Your task to perform on an android device: change text size in settings app Image 0: 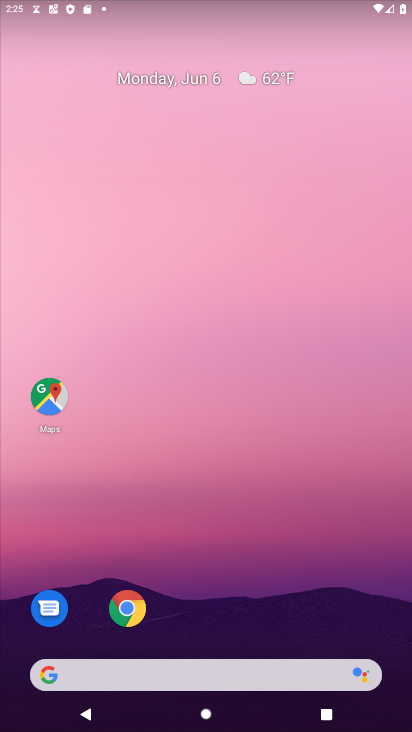
Step 0: drag from (262, 518) to (106, 4)
Your task to perform on an android device: change text size in settings app Image 1: 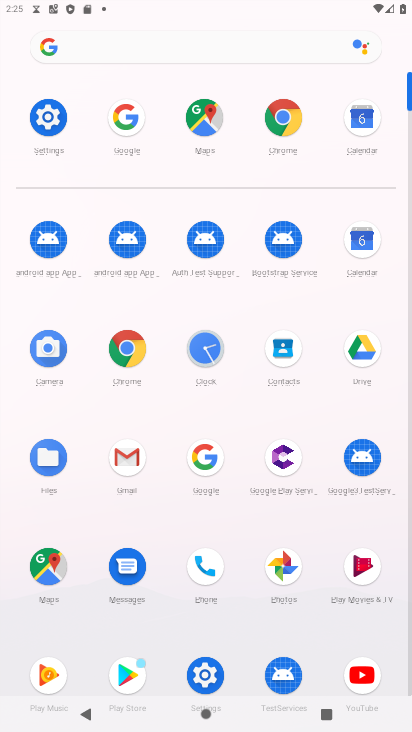
Step 1: click (45, 132)
Your task to perform on an android device: change text size in settings app Image 2: 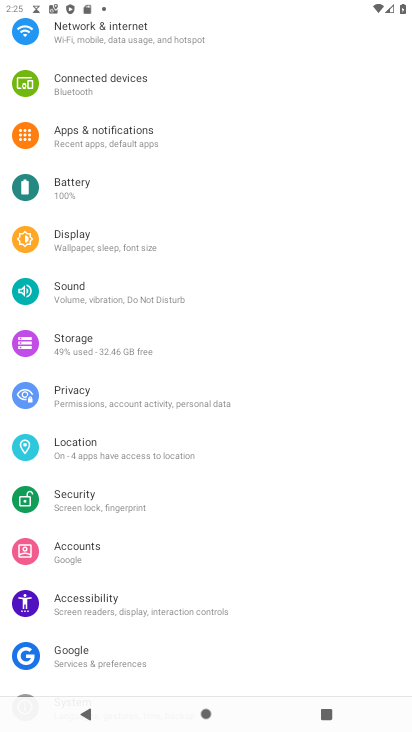
Step 2: drag from (172, 183) to (184, 623)
Your task to perform on an android device: change text size in settings app Image 3: 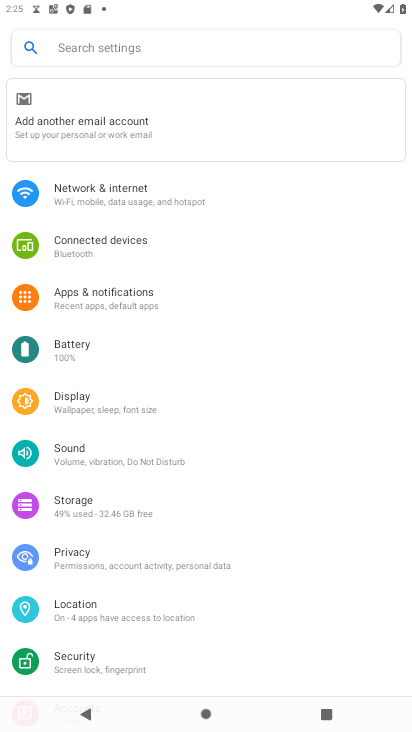
Step 3: click (139, 402)
Your task to perform on an android device: change text size in settings app Image 4: 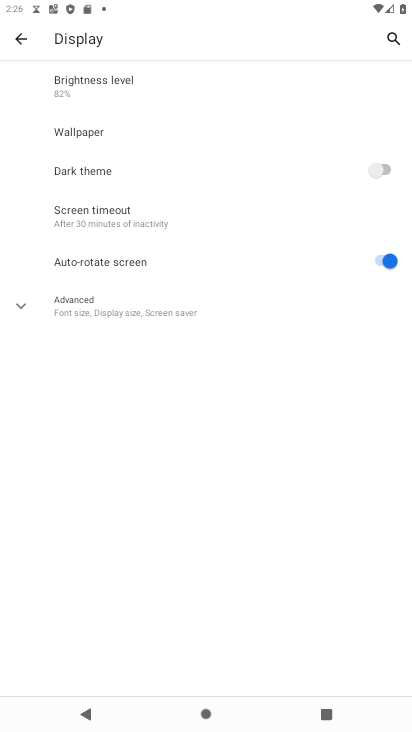
Step 4: click (164, 312)
Your task to perform on an android device: change text size in settings app Image 5: 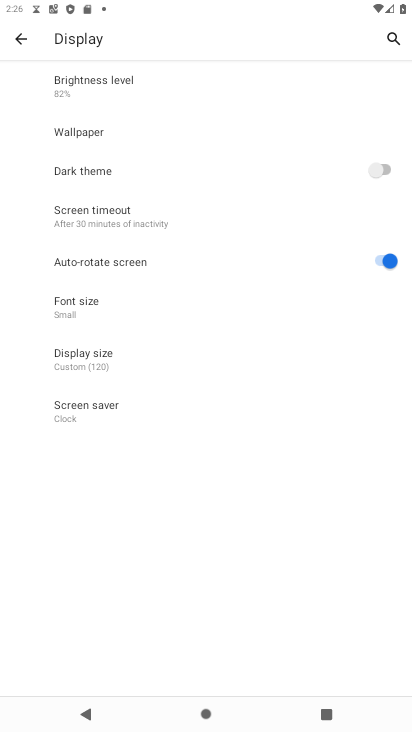
Step 5: click (99, 303)
Your task to perform on an android device: change text size in settings app Image 6: 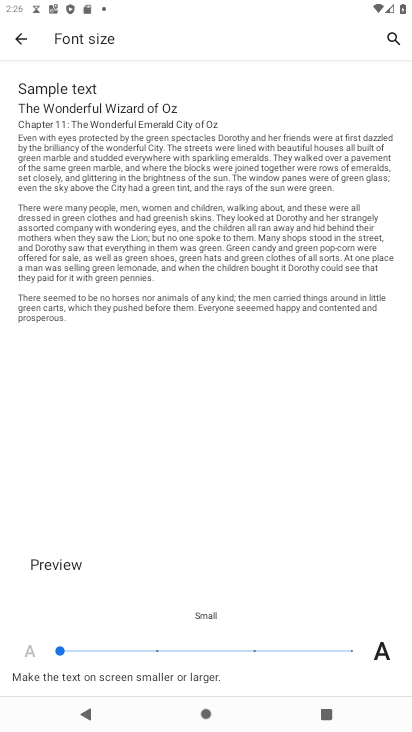
Step 6: click (130, 650)
Your task to perform on an android device: change text size in settings app Image 7: 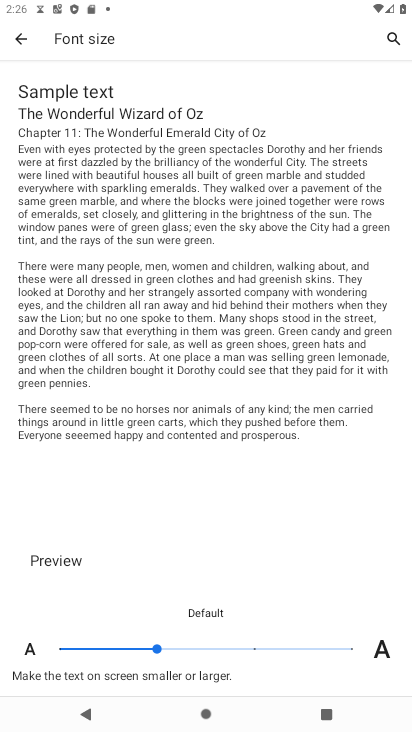
Step 7: task complete